Your task to perform on an android device: turn off picture-in-picture Image 0: 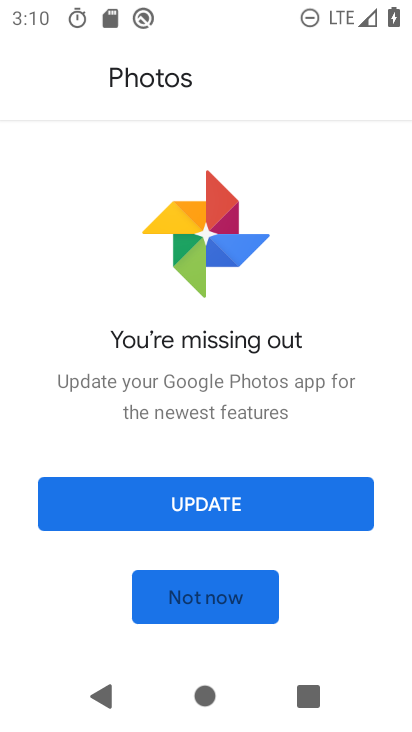
Step 0: press back button
Your task to perform on an android device: turn off picture-in-picture Image 1: 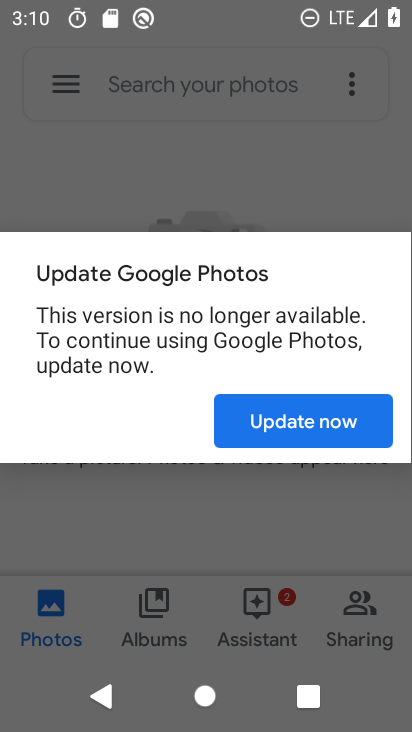
Step 1: press home button
Your task to perform on an android device: turn off picture-in-picture Image 2: 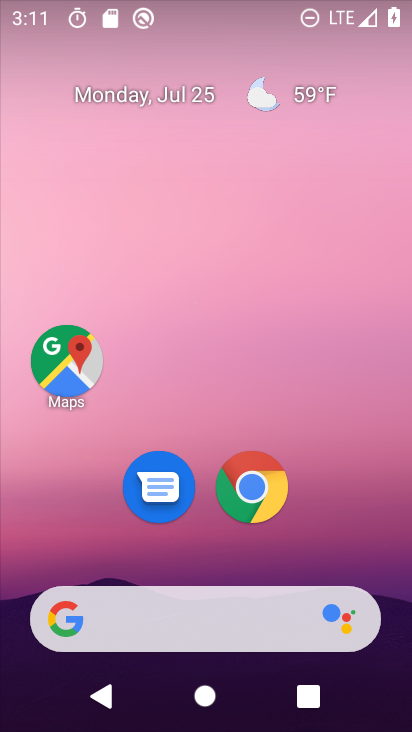
Step 2: drag from (96, 528) to (233, 2)
Your task to perform on an android device: turn off picture-in-picture Image 3: 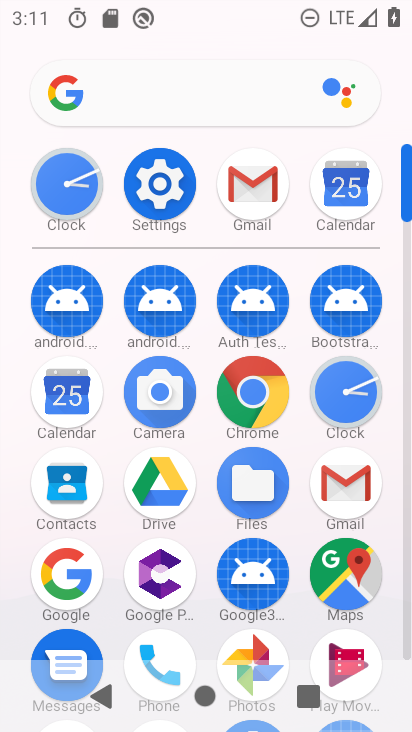
Step 3: click (147, 184)
Your task to perform on an android device: turn off picture-in-picture Image 4: 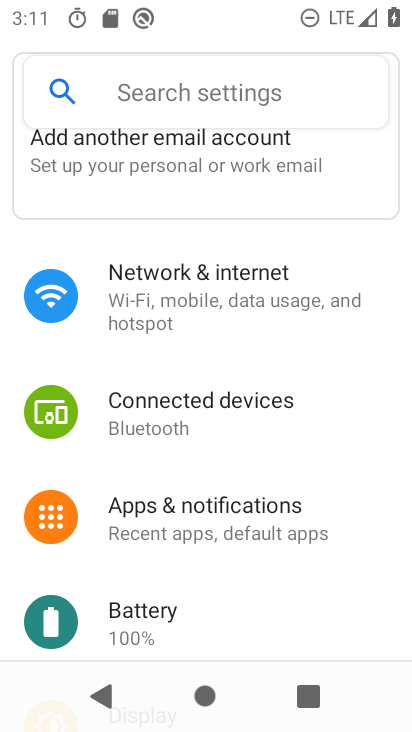
Step 4: click (240, 500)
Your task to perform on an android device: turn off picture-in-picture Image 5: 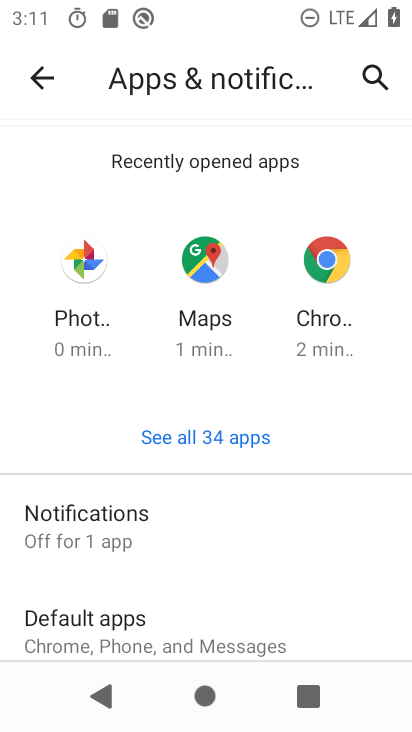
Step 5: drag from (198, 610) to (270, 47)
Your task to perform on an android device: turn off picture-in-picture Image 6: 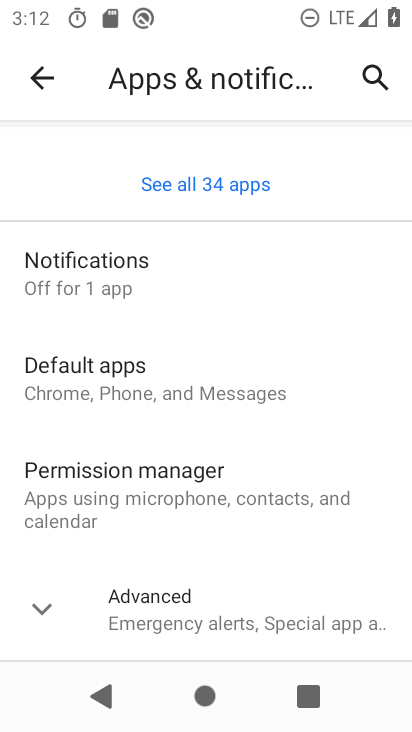
Step 6: drag from (253, 627) to (278, 232)
Your task to perform on an android device: turn off picture-in-picture Image 7: 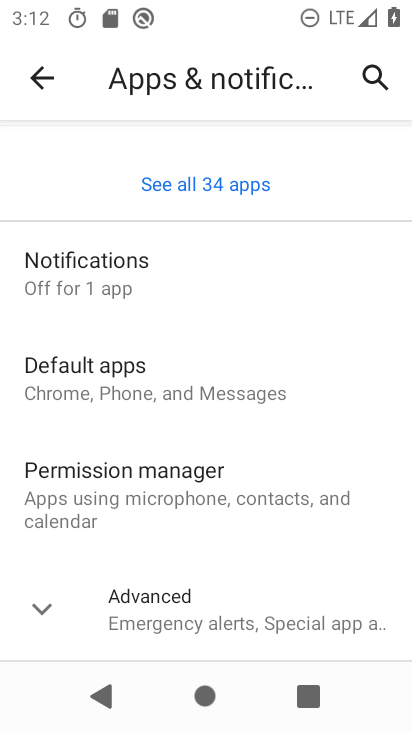
Step 7: click (165, 263)
Your task to perform on an android device: turn off picture-in-picture Image 8: 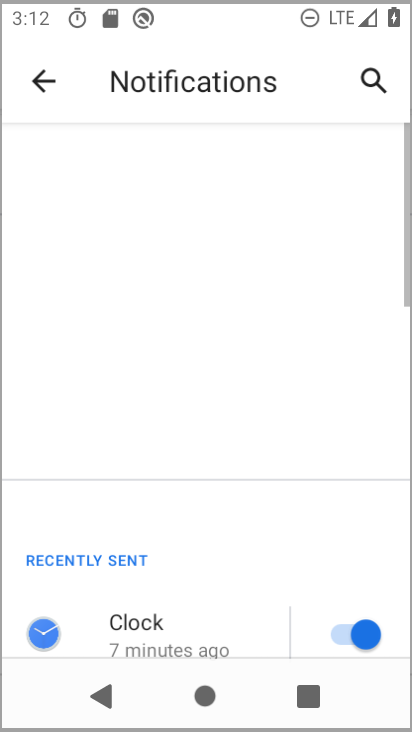
Step 8: drag from (173, 537) to (287, 28)
Your task to perform on an android device: turn off picture-in-picture Image 9: 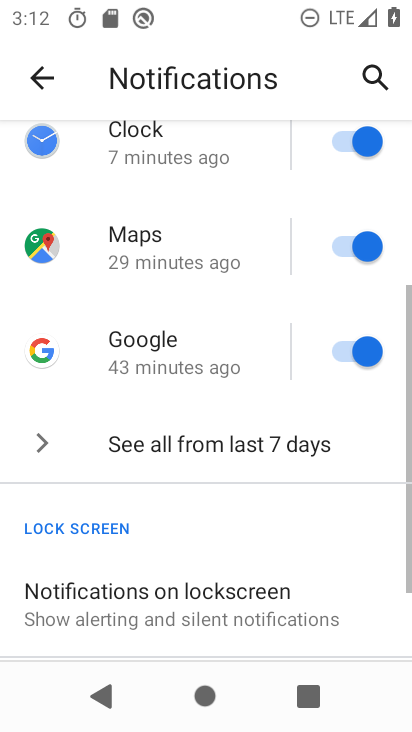
Step 9: drag from (155, 458) to (262, 0)
Your task to perform on an android device: turn off picture-in-picture Image 10: 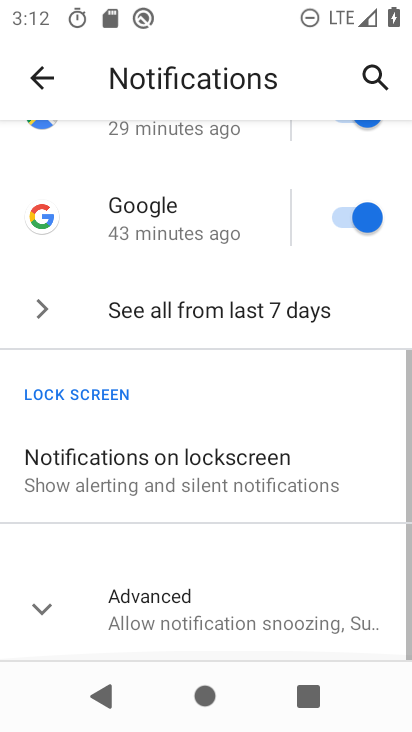
Step 10: click (165, 579)
Your task to perform on an android device: turn off picture-in-picture Image 11: 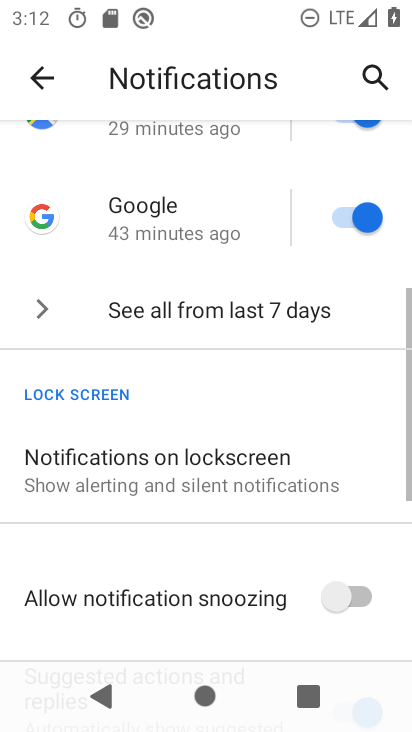
Step 11: drag from (207, 591) to (210, 148)
Your task to perform on an android device: turn off picture-in-picture Image 12: 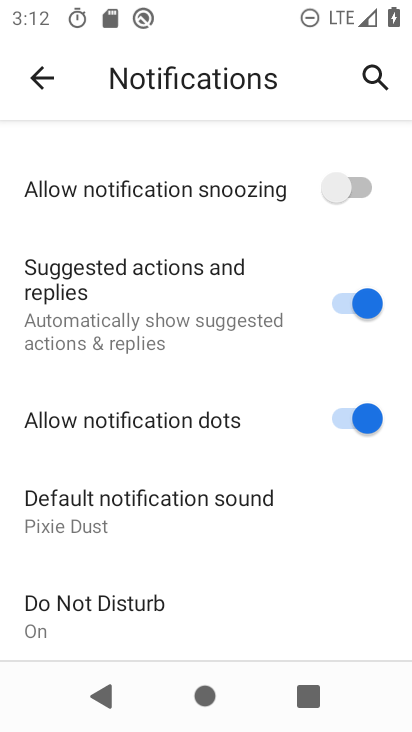
Step 12: drag from (105, 598) to (274, 22)
Your task to perform on an android device: turn off picture-in-picture Image 13: 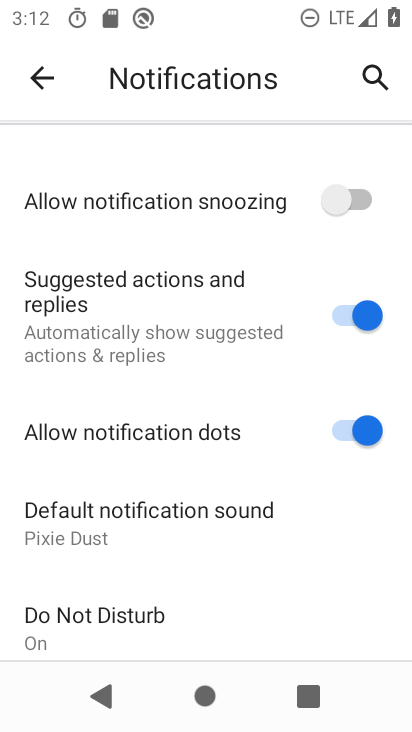
Step 13: drag from (140, 560) to (257, 16)
Your task to perform on an android device: turn off picture-in-picture Image 14: 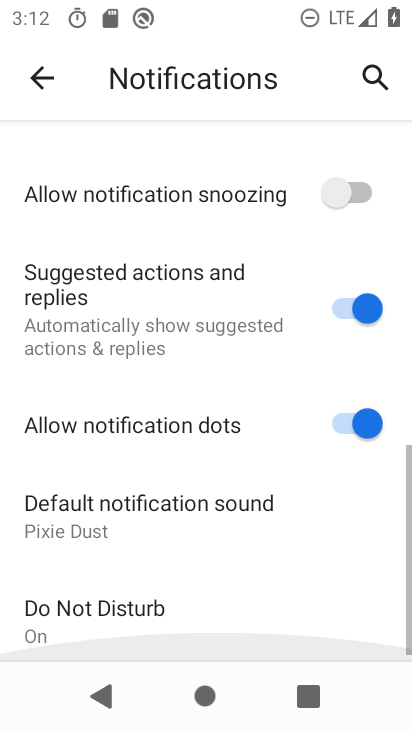
Step 14: drag from (163, 549) to (261, 18)
Your task to perform on an android device: turn off picture-in-picture Image 15: 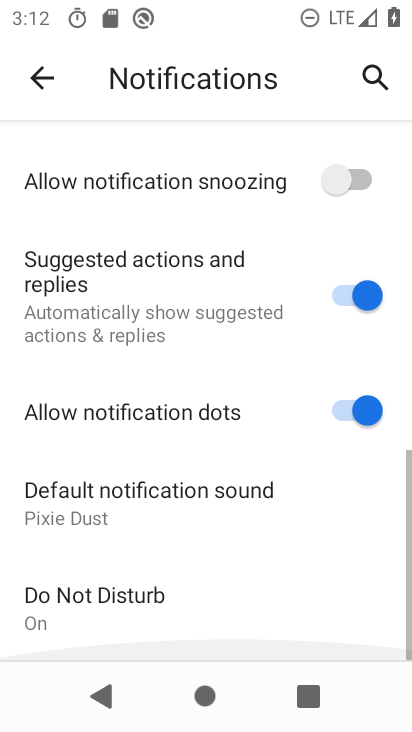
Step 15: drag from (183, 321) to (122, 724)
Your task to perform on an android device: turn off picture-in-picture Image 16: 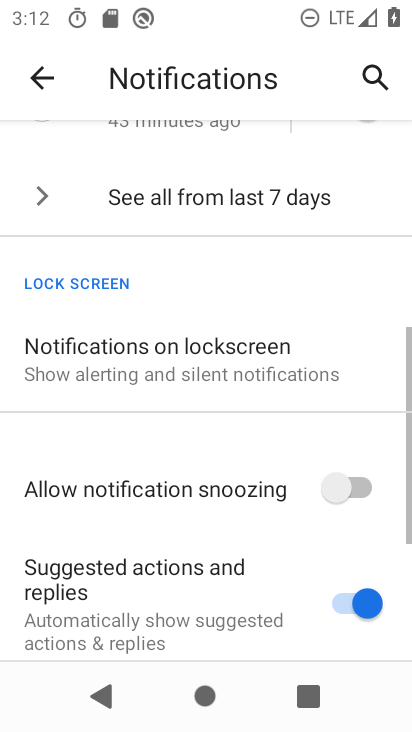
Step 16: drag from (210, 173) to (123, 731)
Your task to perform on an android device: turn off picture-in-picture Image 17: 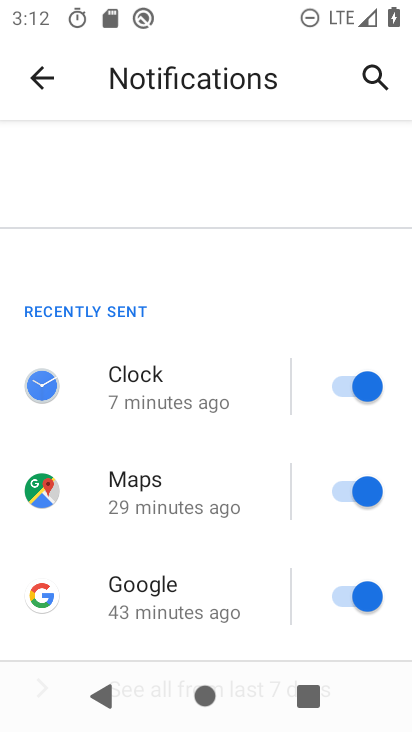
Step 17: drag from (232, 290) to (212, 725)
Your task to perform on an android device: turn off picture-in-picture Image 18: 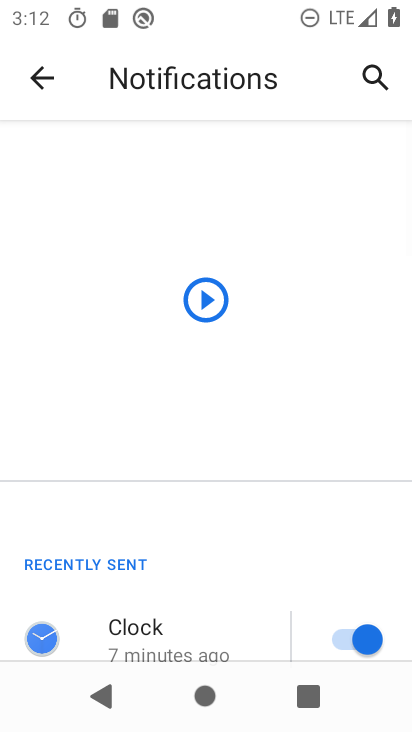
Step 18: click (31, 74)
Your task to perform on an android device: turn off picture-in-picture Image 19: 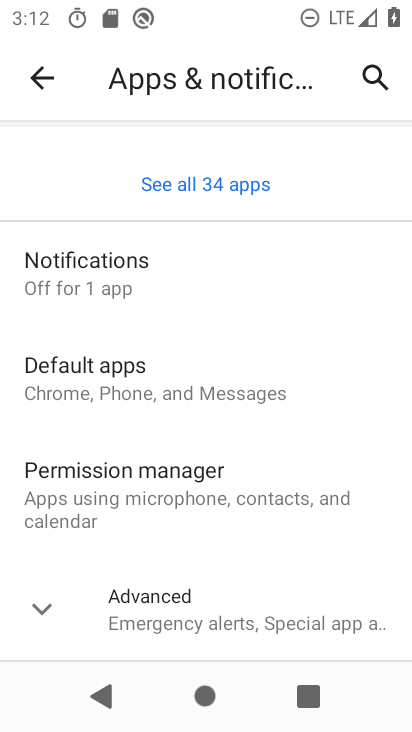
Step 19: click (184, 615)
Your task to perform on an android device: turn off picture-in-picture Image 20: 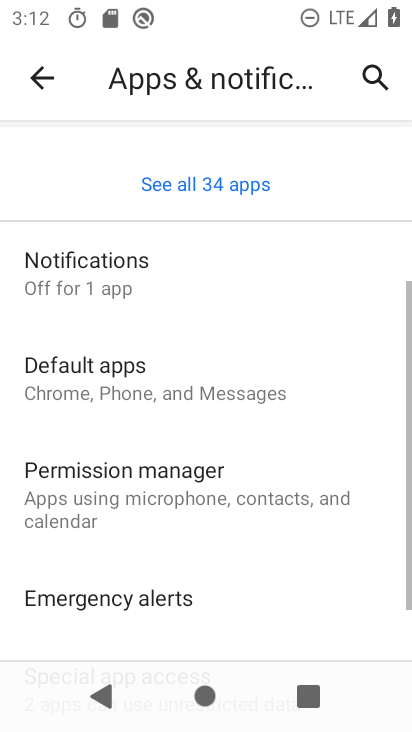
Step 20: drag from (187, 612) to (246, 29)
Your task to perform on an android device: turn off picture-in-picture Image 21: 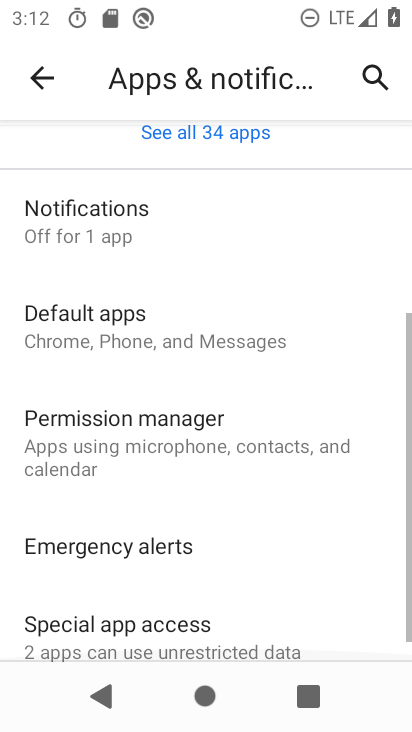
Step 21: click (105, 604)
Your task to perform on an android device: turn off picture-in-picture Image 22: 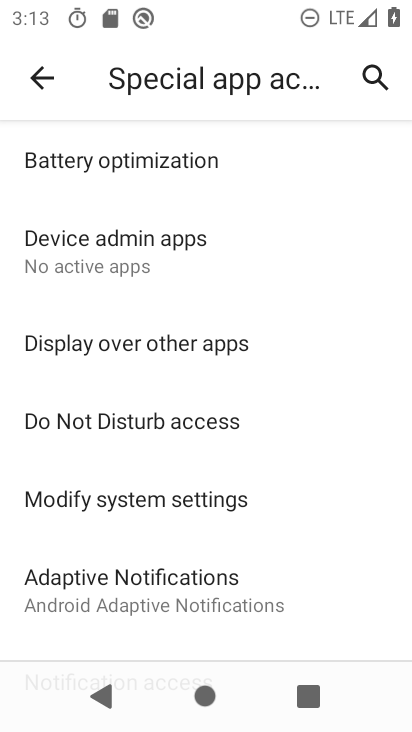
Step 22: drag from (95, 593) to (206, 112)
Your task to perform on an android device: turn off picture-in-picture Image 23: 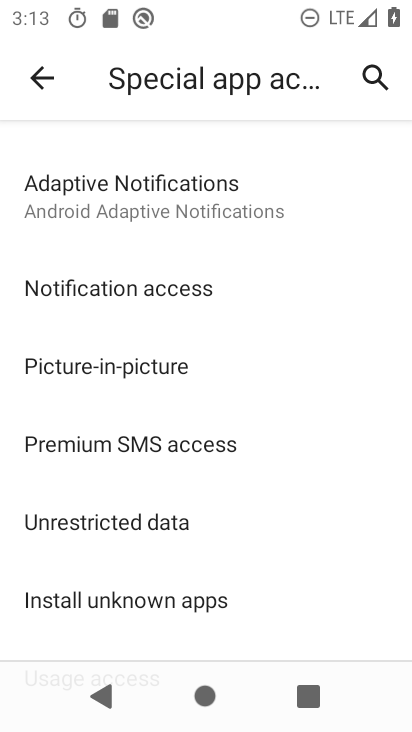
Step 23: click (82, 358)
Your task to perform on an android device: turn off picture-in-picture Image 24: 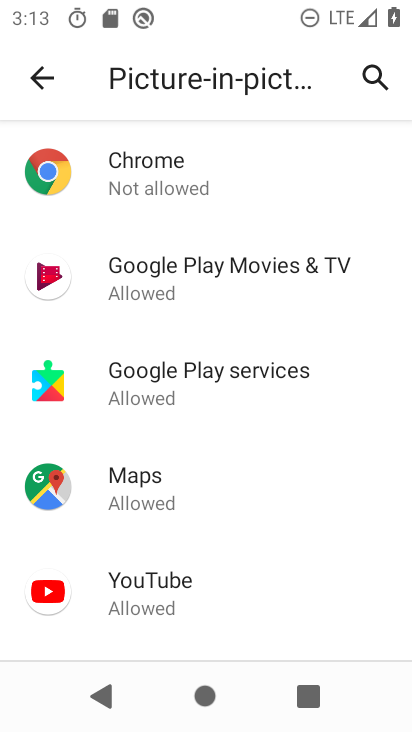
Step 24: click (194, 177)
Your task to perform on an android device: turn off picture-in-picture Image 25: 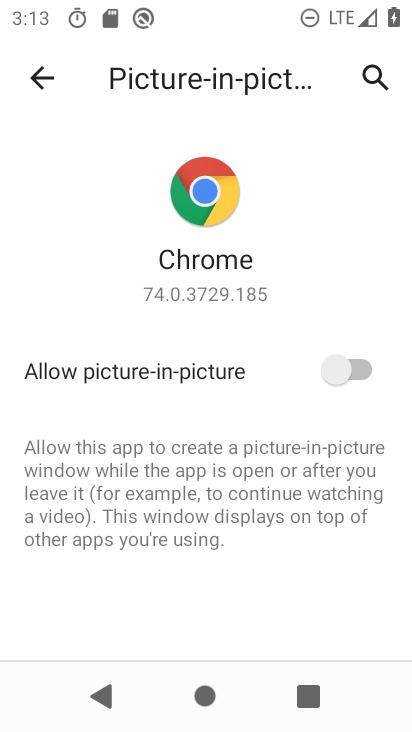
Step 25: task complete